Your task to perform on an android device: Go to CNN.com Image 0: 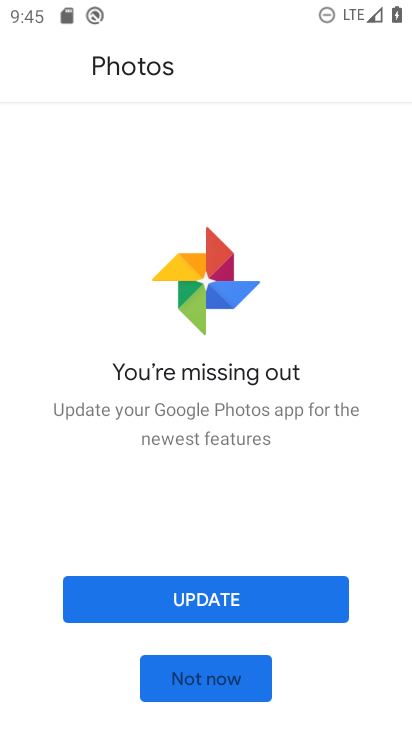
Step 0: press home button
Your task to perform on an android device: Go to CNN.com Image 1: 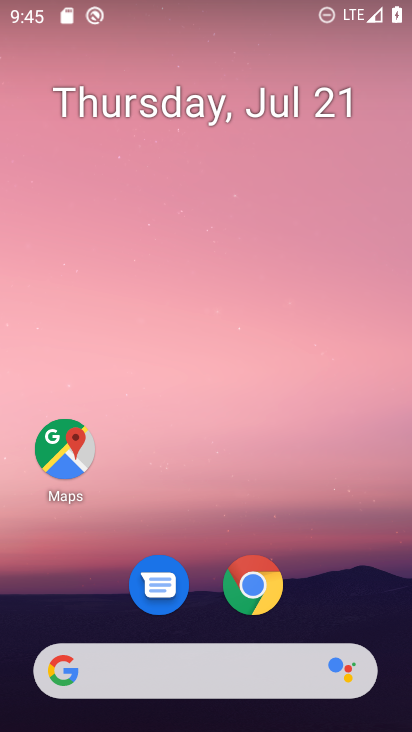
Step 1: click (263, 684)
Your task to perform on an android device: Go to CNN.com Image 2: 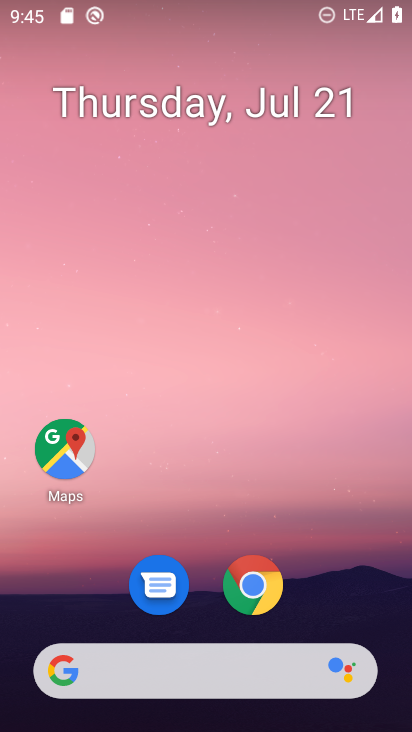
Step 2: click (232, 685)
Your task to perform on an android device: Go to CNN.com Image 3: 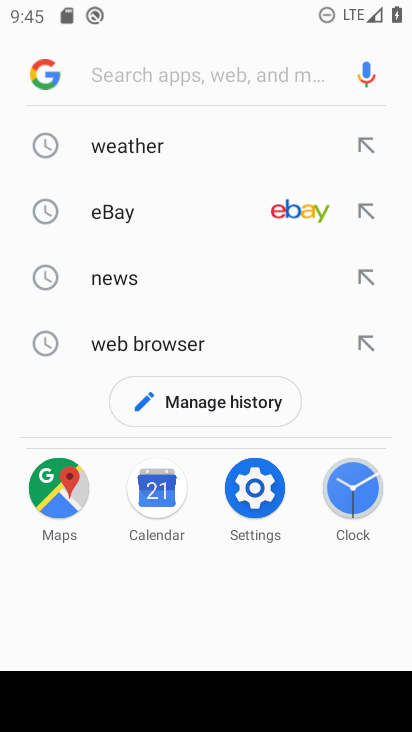
Step 3: type "cnn.com"
Your task to perform on an android device: Go to CNN.com Image 4: 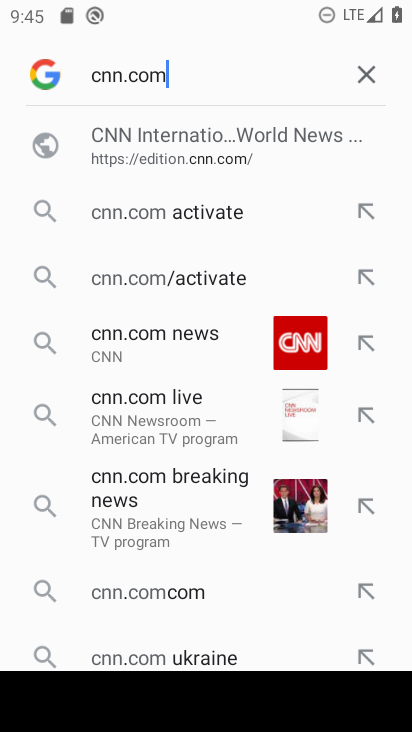
Step 4: click (181, 331)
Your task to perform on an android device: Go to CNN.com Image 5: 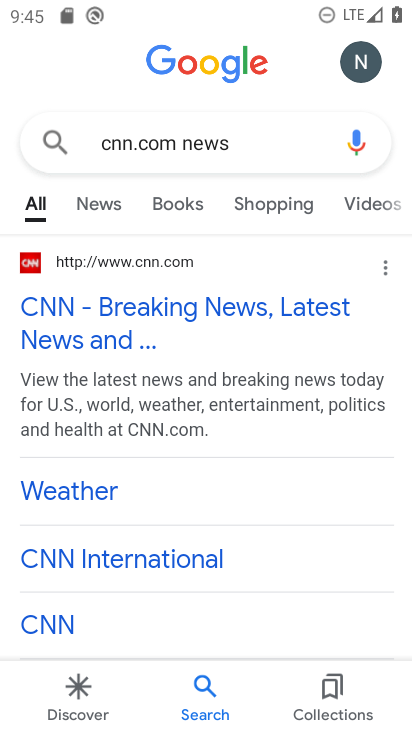
Step 5: click (158, 304)
Your task to perform on an android device: Go to CNN.com Image 6: 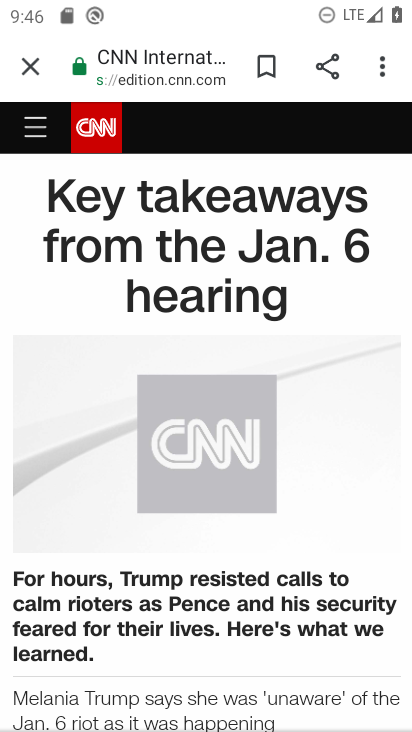
Step 6: task complete